Your task to perform on an android device: turn on data saver in the chrome app Image 0: 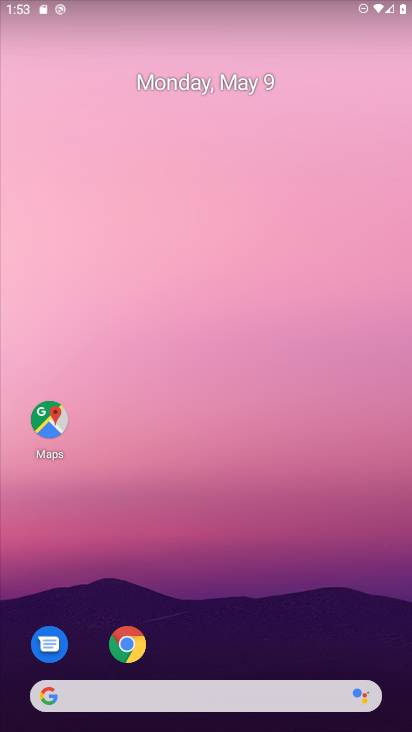
Step 0: drag from (266, 633) to (256, 166)
Your task to perform on an android device: turn on data saver in the chrome app Image 1: 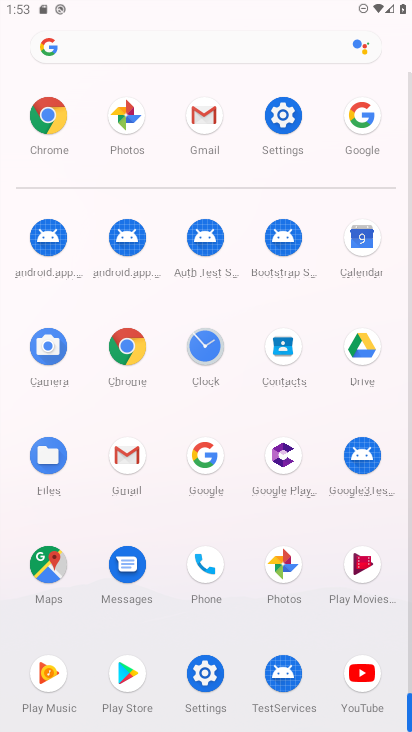
Step 1: click (128, 386)
Your task to perform on an android device: turn on data saver in the chrome app Image 2: 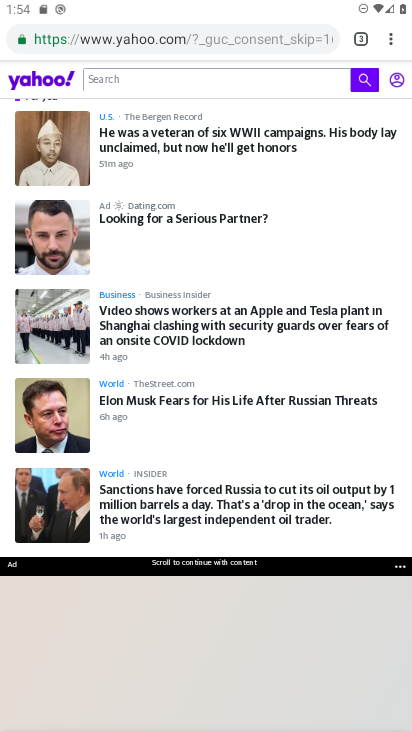
Step 2: press home button
Your task to perform on an android device: turn on data saver in the chrome app Image 3: 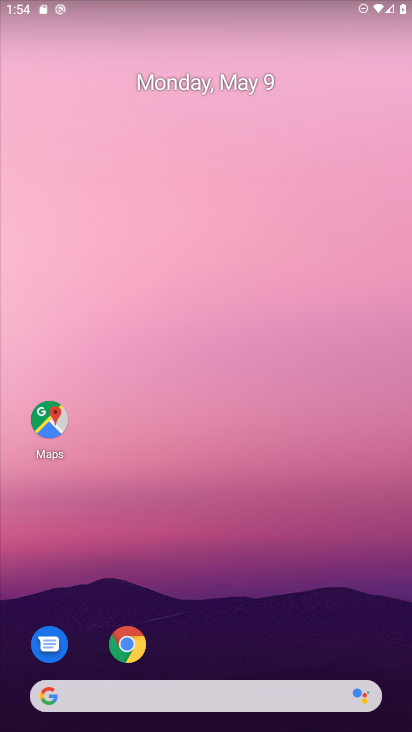
Step 3: drag from (310, 613) to (294, 149)
Your task to perform on an android device: turn on data saver in the chrome app Image 4: 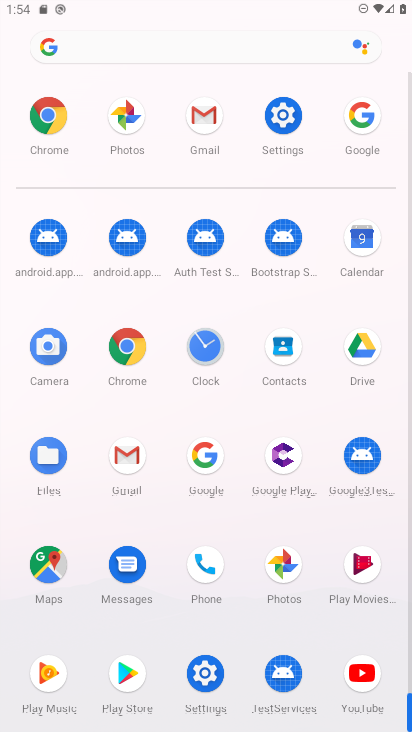
Step 4: click (50, 145)
Your task to perform on an android device: turn on data saver in the chrome app Image 5: 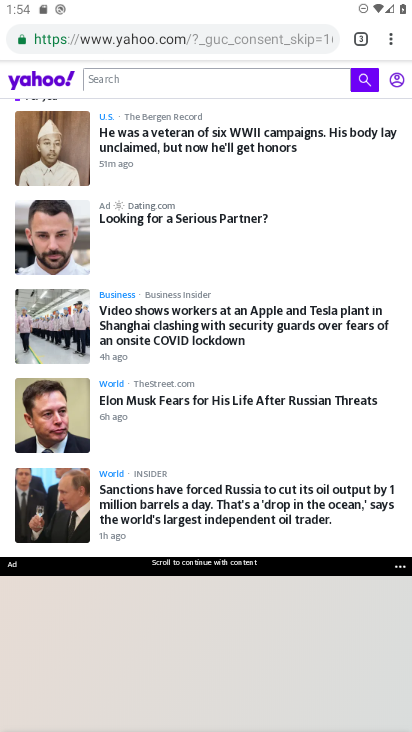
Step 5: click (390, 42)
Your task to perform on an android device: turn on data saver in the chrome app Image 6: 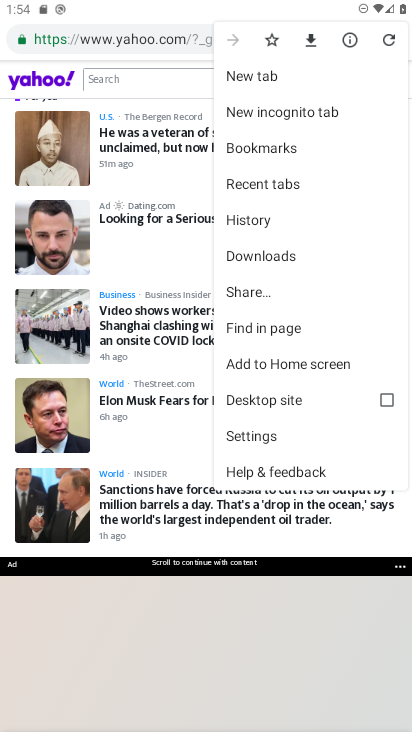
Step 6: click (267, 438)
Your task to perform on an android device: turn on data saver in the chrome app Image 7: 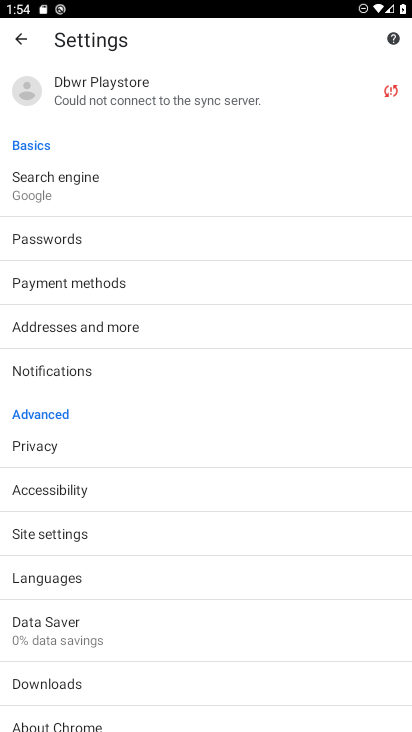
Step 7: click (34, 621)
Your task to perform on an android device: turn on data saver in the chrome app Image 8: 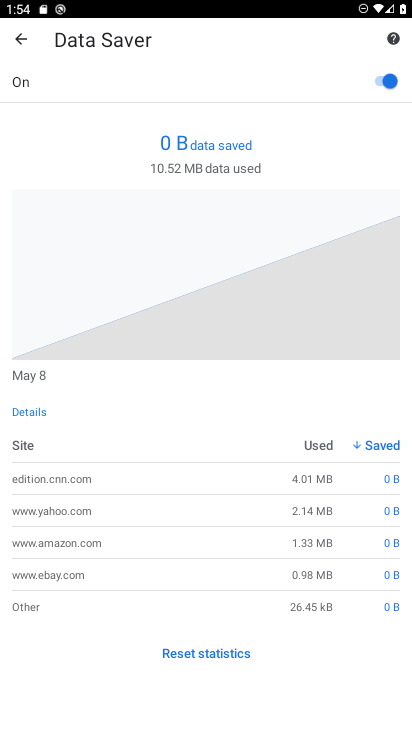
Step 8: task complete